Your task to perform on an android device: turn pop-ups on in chrome Image 0: 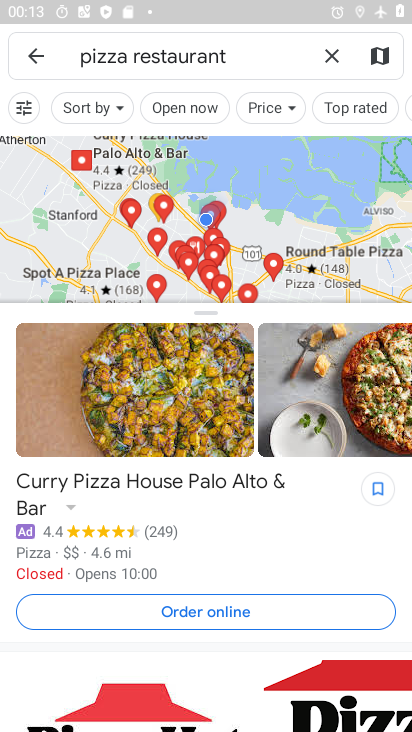
Step 0: press home button
Your task to perform on an android device: turn pop-ups on in chrome Image 1: 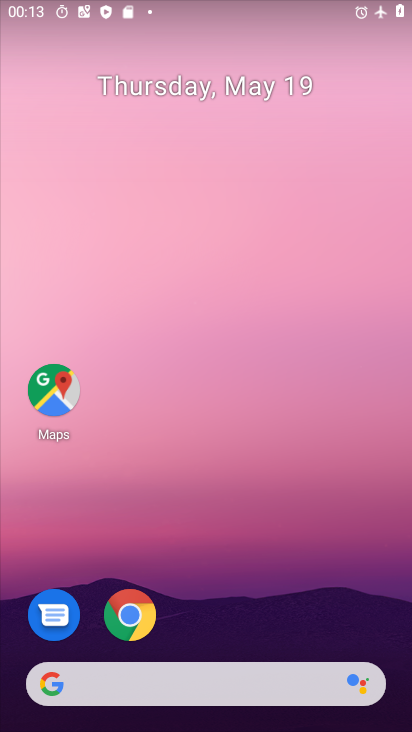
Step 1: click (122, 620)
Your task to perform on an android device: turn pop-ups on in chrome Image 2: 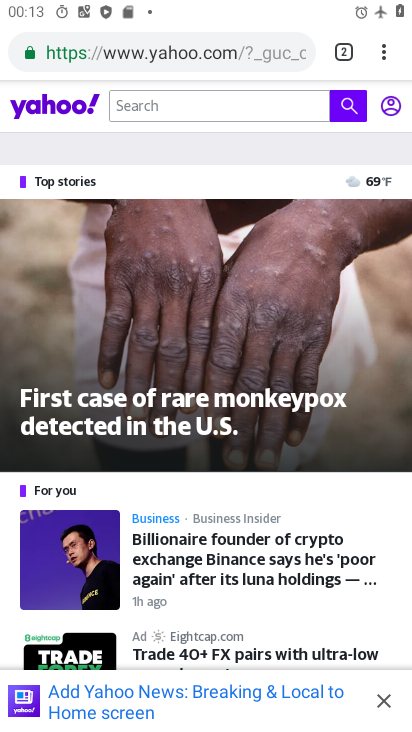
Step 2: click (383, 47)
Your task to perform on an android device: turn pop-ups on in chrome Image 3: 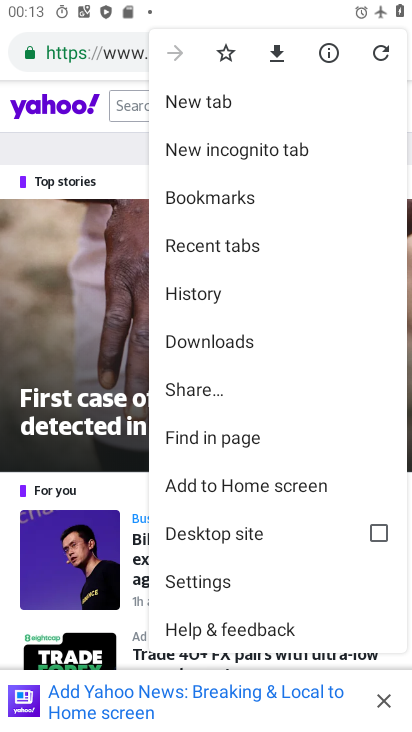
Step 3: click (194, 580)
Your task to perform on an android device: turn pop-ups on in chrome Image 4: 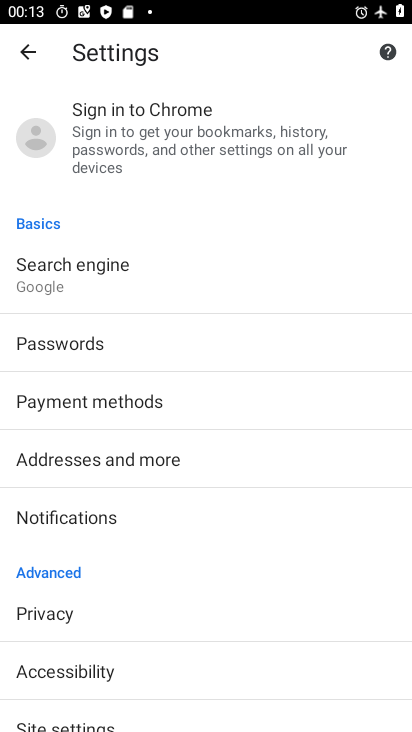
Step 4: drag from (73, 726) to (280, 228)
Your task to perform on an android device: turn pop-ups on in chrome Image 5: 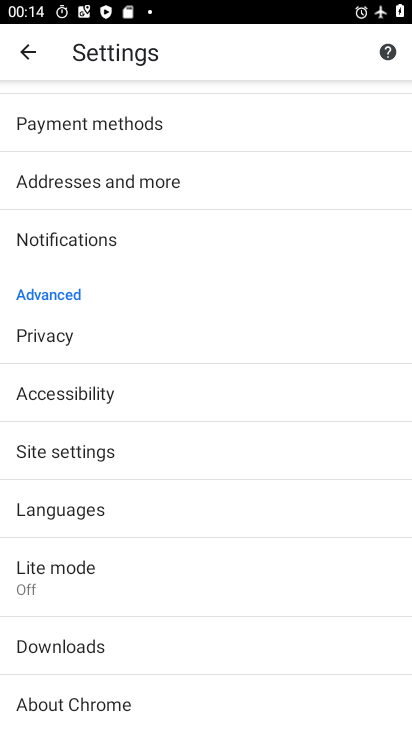
Step 5: click (127, 453)
Your task to perform on an android device: turn pop-ups on in chrome Image 6: 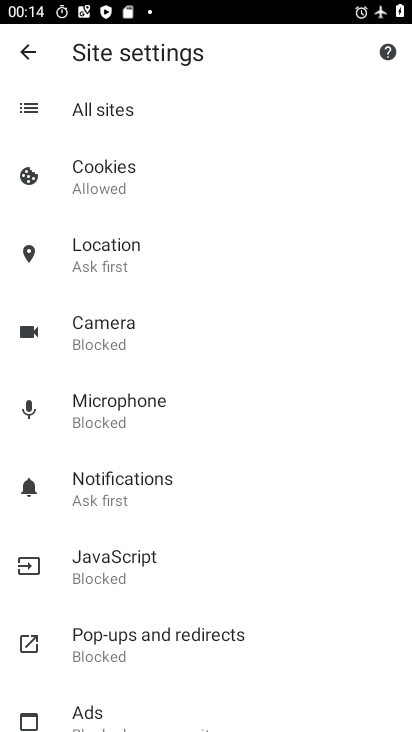
Step 6: click (170, 642)
Your task to perform on an android device: turn pop-ups on in chrome Image 7: 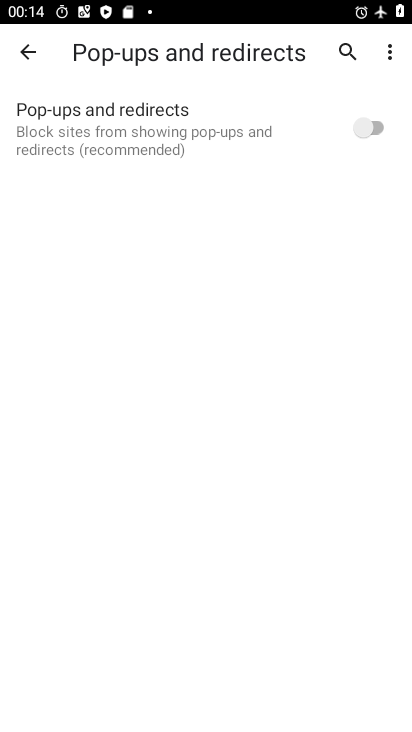
Step 7: click (378, 134)
Your task to perform on an android device: turn pop-ups on in chrome Image 8: 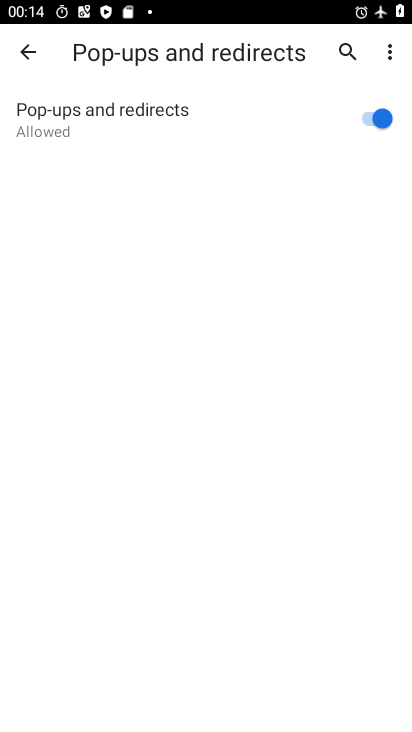
Step 8: task complete